Your task to perform on an android device: turn pop-ups off in chrome Image 0: 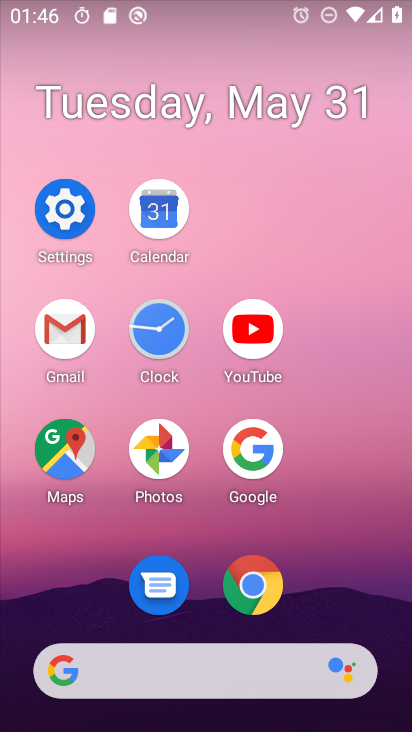
Step 0: click (273, 589)
Your task to perform on an android device: turn pop-ups off in chrome Image 1: 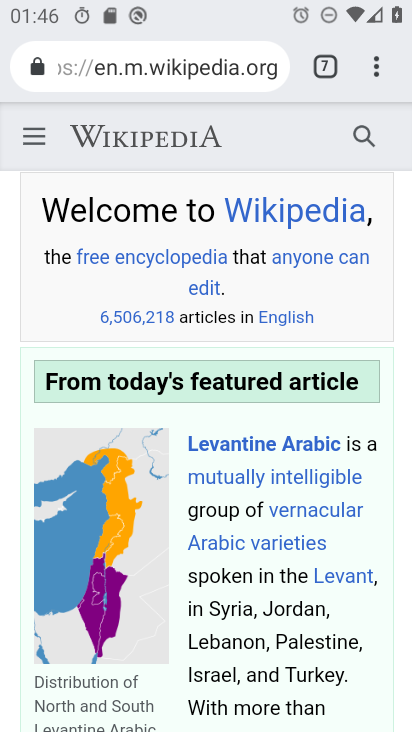
Step 1: click (392, 74)
Your task to perform on an android device: turn pop-ups off in chrome Image 2: 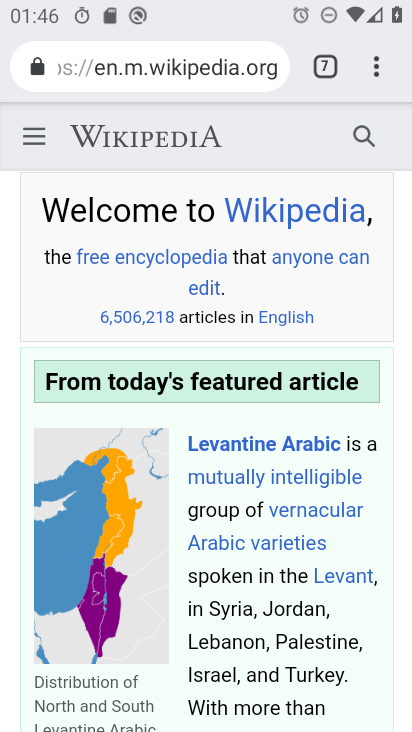
Step 2: click (380, 69)
Your task to perform on an android device: turn pop-ups off in chrome Image 3: 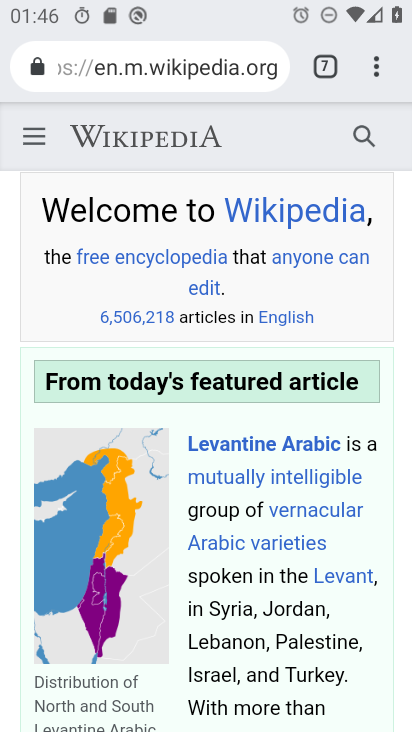
Step 3: click (372, 72)
Your task to perform on an android device: turn pop-ups off in chrome Image 4: 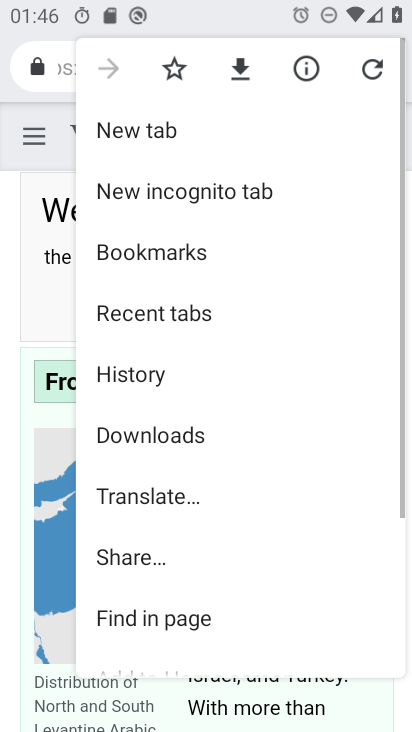
Step 4: drag from (216, 588) to (256, 180)
Your task to perform on an android device: turn pop-ups off in chrome Image 5: 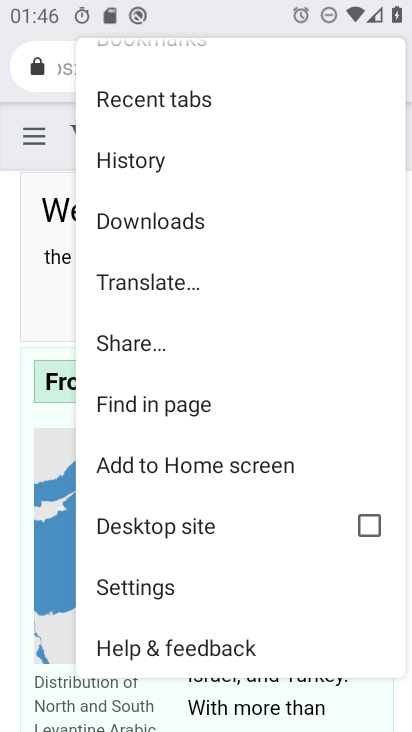
Step 5: click (220, 587)
Your task to perform on an android device: turn pop-ups off in chrome Image 6: 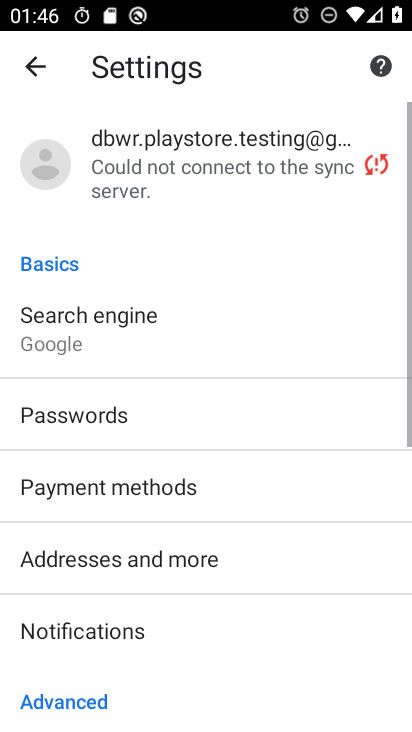
Step 6: drag from (220, 587) to (282, 171)
Your task to perform on an android device: turn pop-ups off in chrome Image 7: 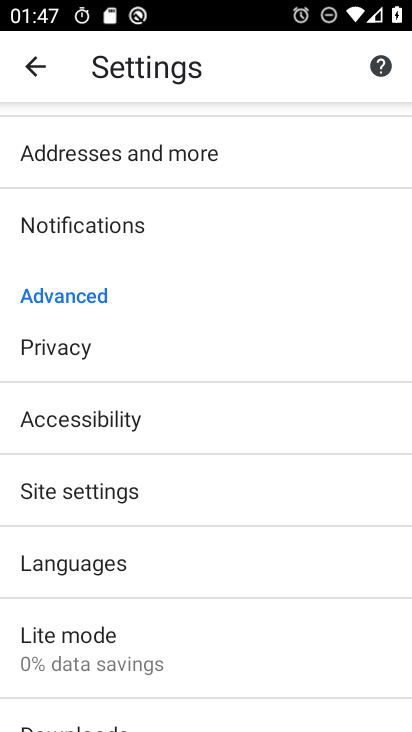
Step 7: click (190, 476)
Your task to perform on an android device: turn pop-ups off in chrome Image 8: 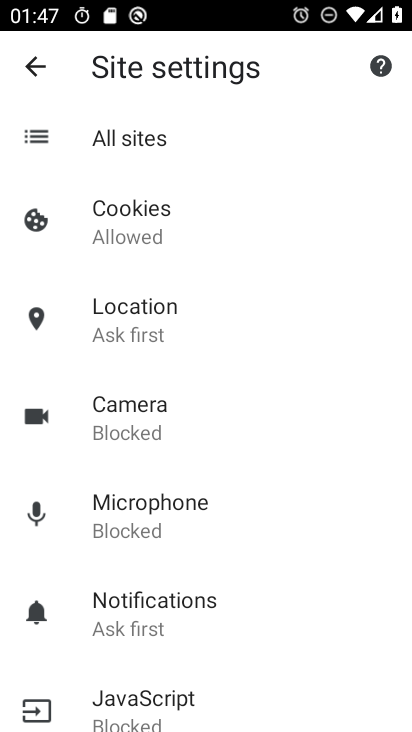
Step 8: drag from (209, 647) to (245, 224)
Your task to perform on an android device: turn pop-ups off in chrome Image 9: 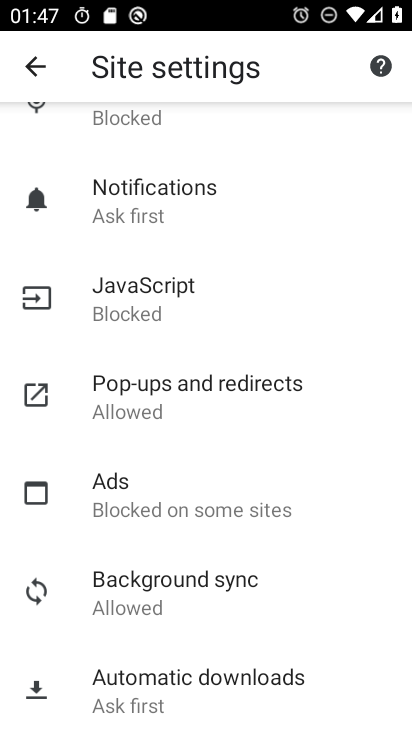
Step 9: click (201, 413)
Your task to perform on an android device: turn pop-ups off in chrome Image 10: 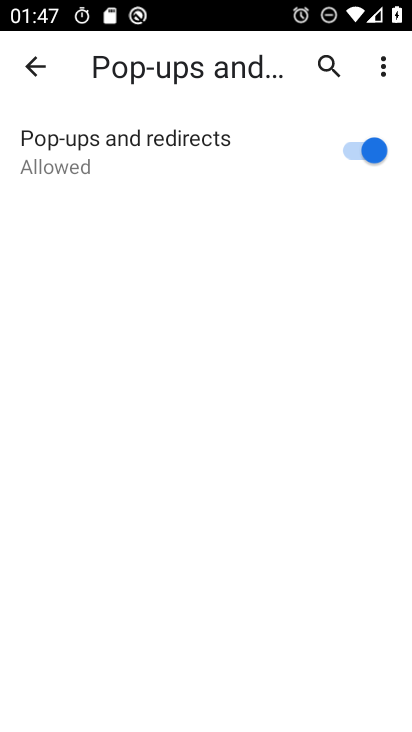
Step 10: click (374, 146)
Your task to perform on an android device: turn pop-ups off in chrome Image 11: 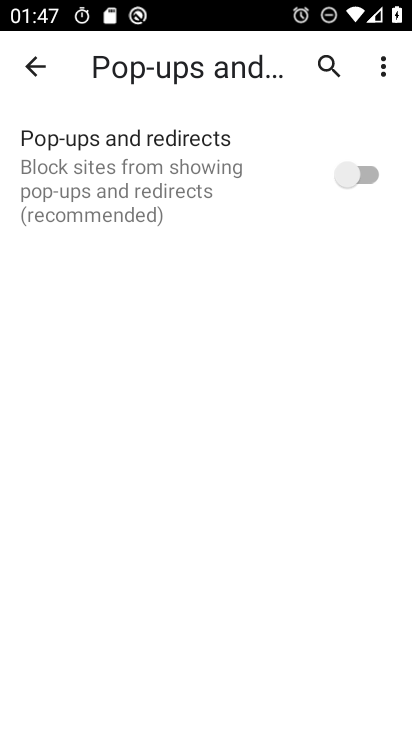
Step 11: task complete